Your task to perform on an android device: add a label to a message in the gmail app Image 0: 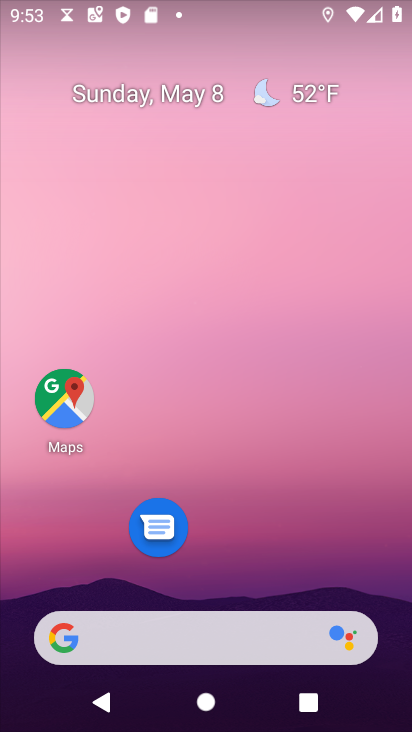
Step 0: drag from (245, 566) to (194, 144)
Your task to perform on an android device: add a label to a message in the gmail app Image 1: 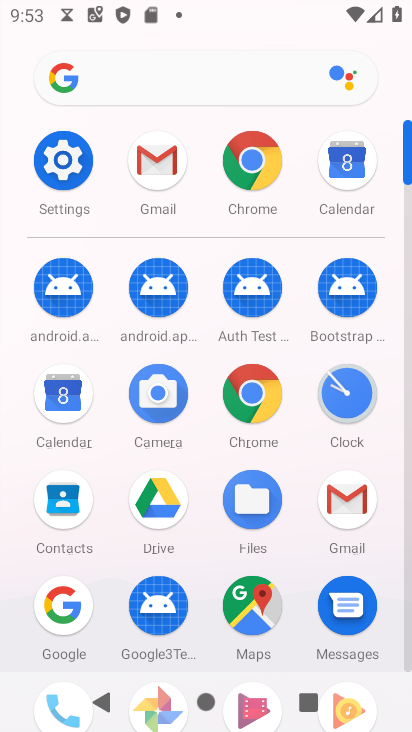
Step 1: click (159, 168)
Your task to perform on an android device: add a label to a message in the gmail app Image 2: 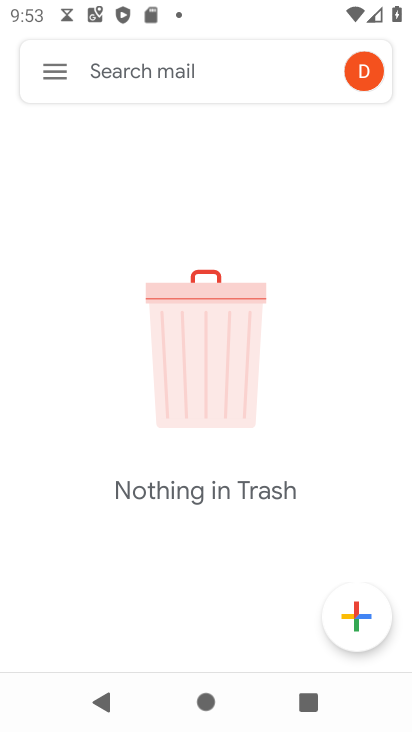
Step 2: click (50, 72)
Your task to perform on an android device: add a label to a message in the gmail app Image 3: 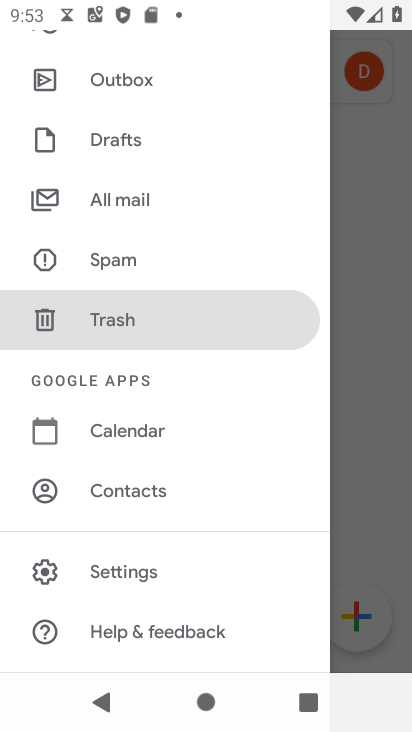
Step 3: click (131, 201)
Your task to perform on an android device: add a label to a message in the gmail app Image 4: 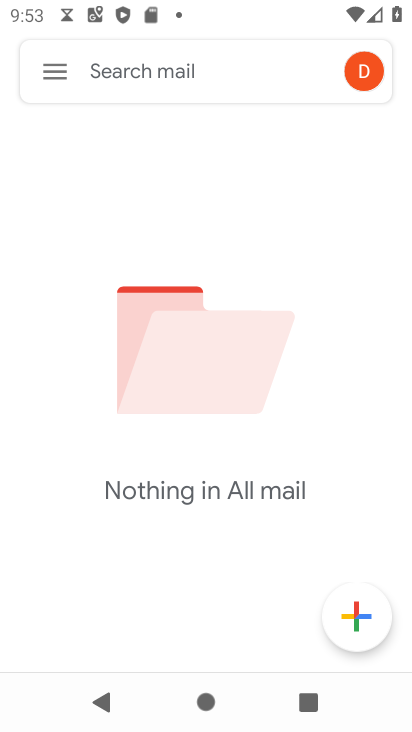
Step 4: click (51, 69)
Your task to perform on an android device: add a label to a message in the gmail app Image 5: 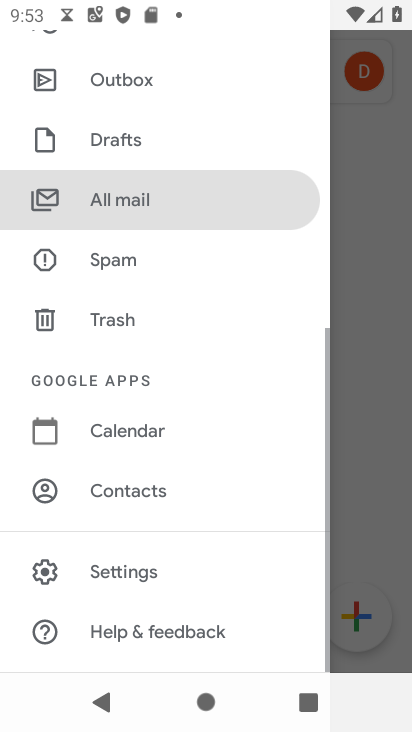
Step 5: task complete